Your task to perform on an android device: What's on my calendar today? Image 0: 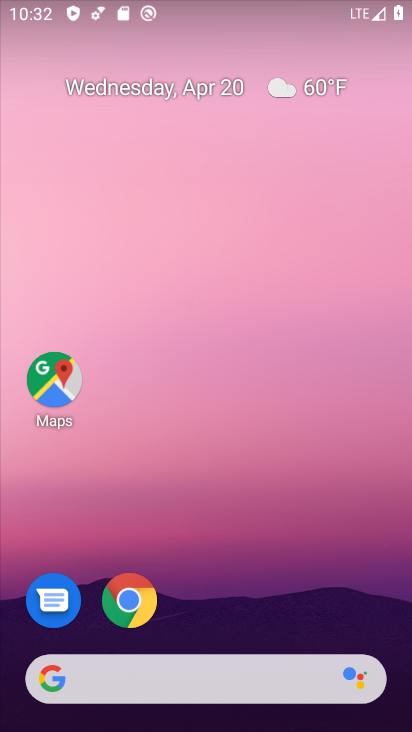
Step 0: drag from (298, 590) to (289, 140)
Your task to perform on an android device: What's on my calendar today? Image 1: 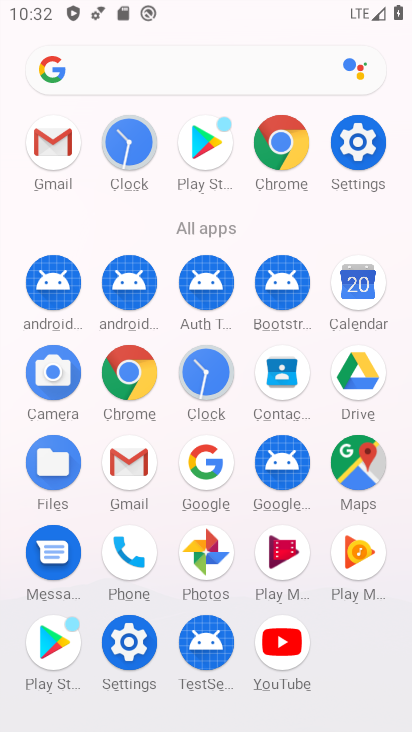
Step 1: click (356, 286)
Your task to perform on an android device: What's on my calendar today? Image 2: 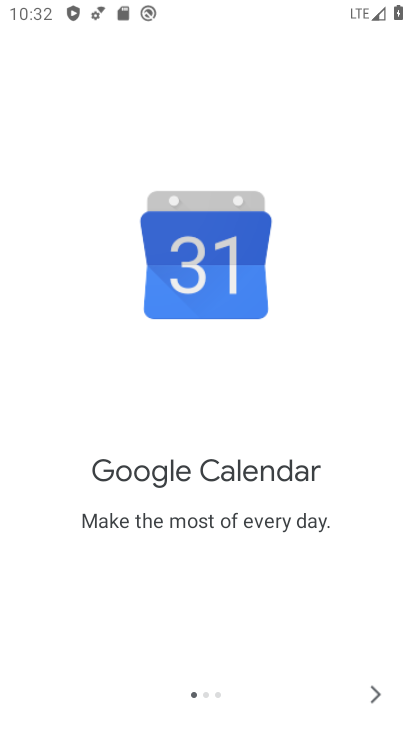
Step 2: click (373, 693)
Your task to perform on an android device: What's on my calendar today? Image 3: 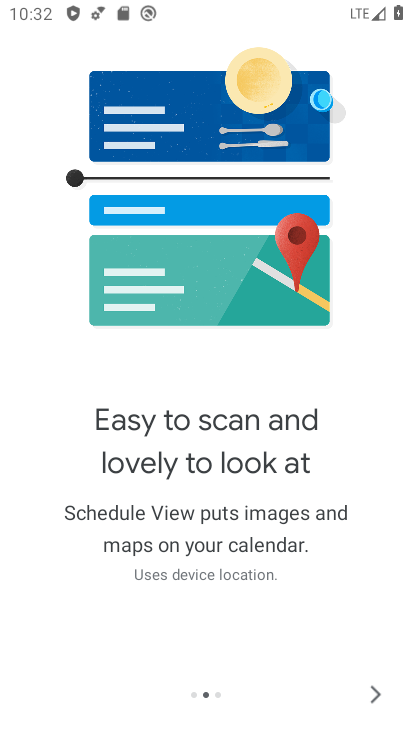
Step 3: click (373, 693)
Your task to perform on an android device: What's on my calendar today? Image 4: 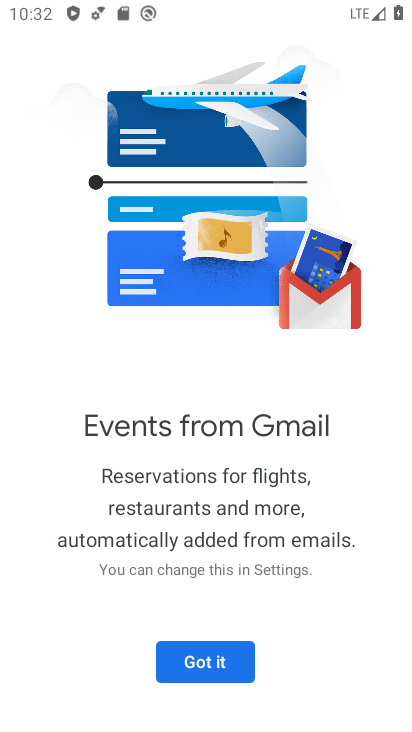
Step 4: click (229, 670)
Your task to perform on an android device: What's on my calendar today? Image 5: 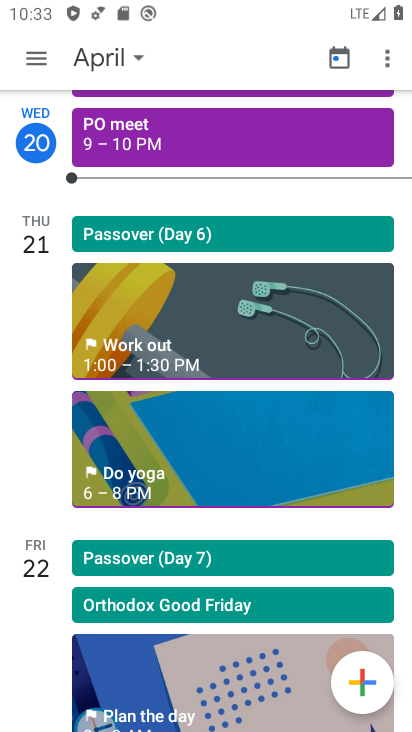
Step 5: task complete